Your task to perform on an android device: stop showing notifications on the lock screen Image 0: 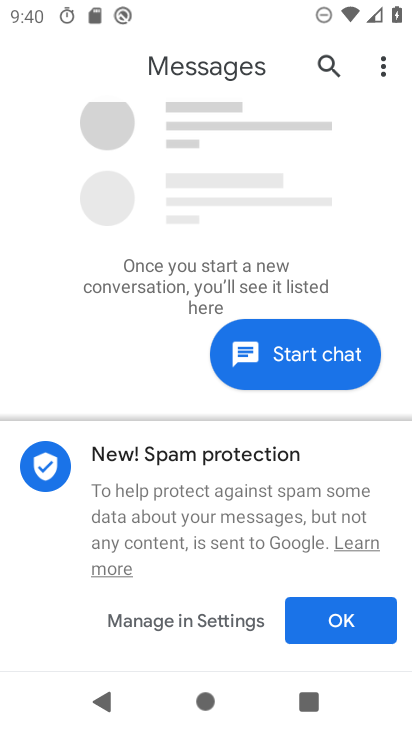
Step 0: press home button
Your task to perform on an android device: stop showing notifications on the lock screen Image 1: 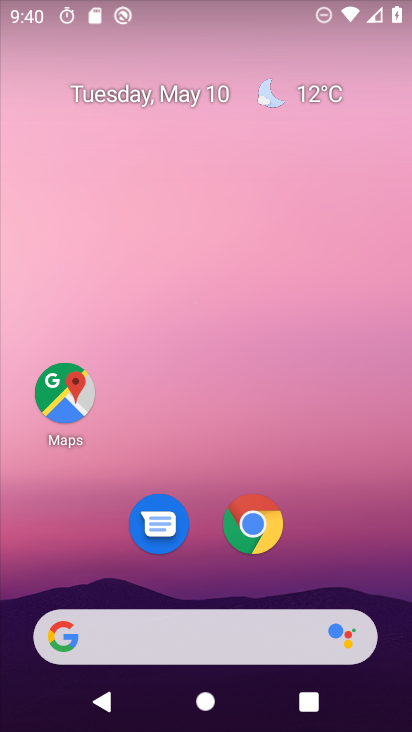
Step 1: drag from (339, 462) to (290, 45)
Your task to perform on an android device: stop showing notifications on the lock screen Image 2: 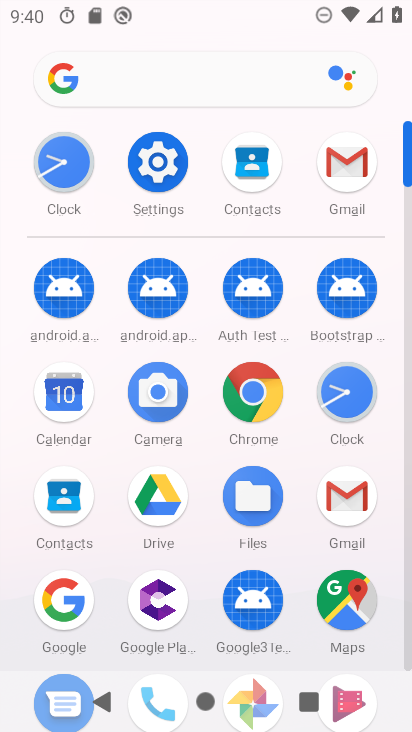
Step 2: click (172, 161)
Your task to perform on an android device: stop showing notifications on the lock screen Image 3: 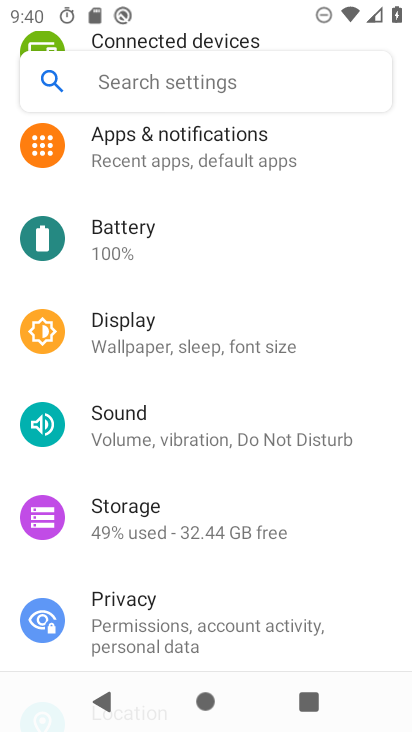
Step 3: click (229, 152)
Your task to perform on an android device: stop showing notifications on the lock screen Image 4: 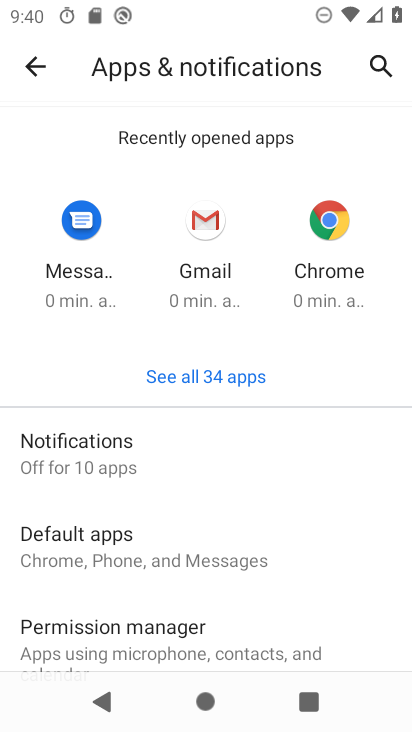
Step 4: click (213, 463)
Your task to perform on an android device: stop showing notifications on the lock screen Image 5: 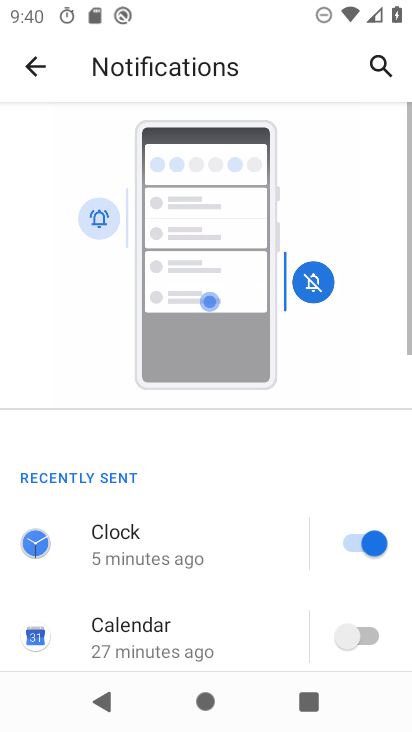
Step 5: task complete